Your task to perform on an android device: Show me popular videos on Youtube Image 0: 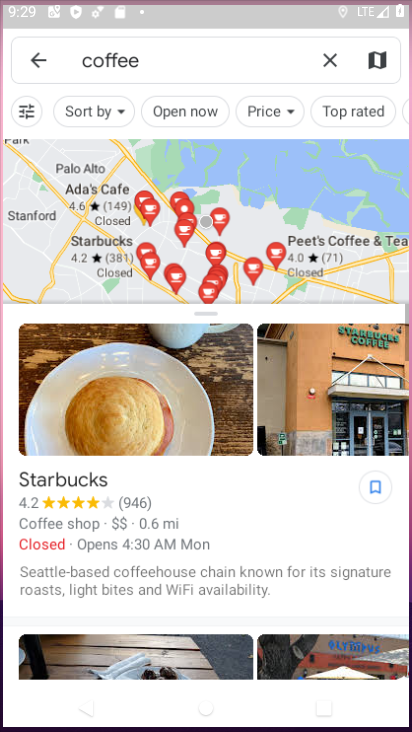
Step 0: drag from (256, 571) to (329, 86)
Your task to perform on an android device: Show me popular videos on Youtube Image 1: 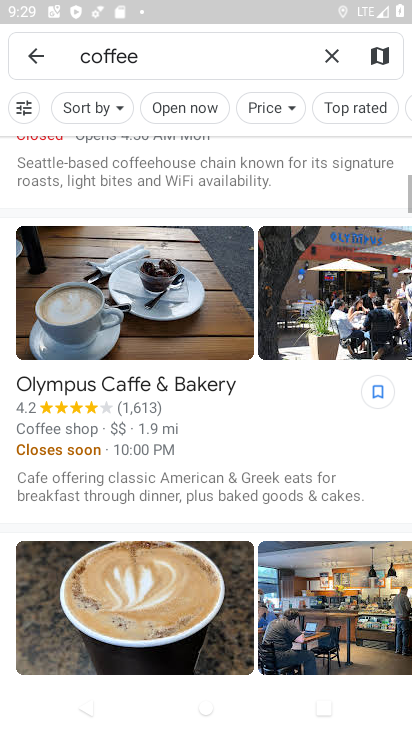
Step 1: press back button
Your task to perform on an android device: Show me popular videos on Youtube Image 2: 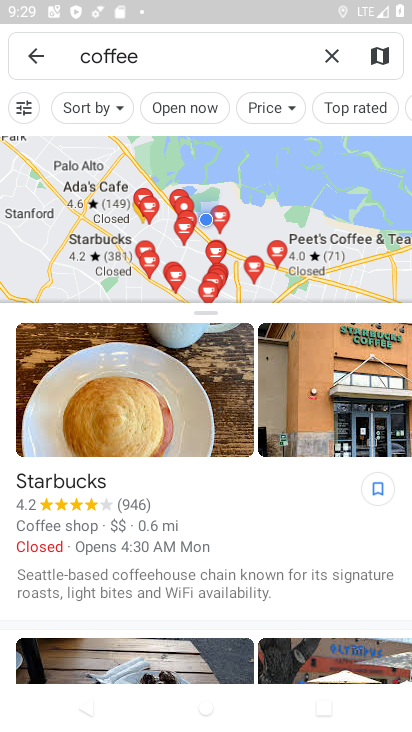
Step 2: press back button
Your task to perform on an android device: Show me popular videos on Youtube Image 3: 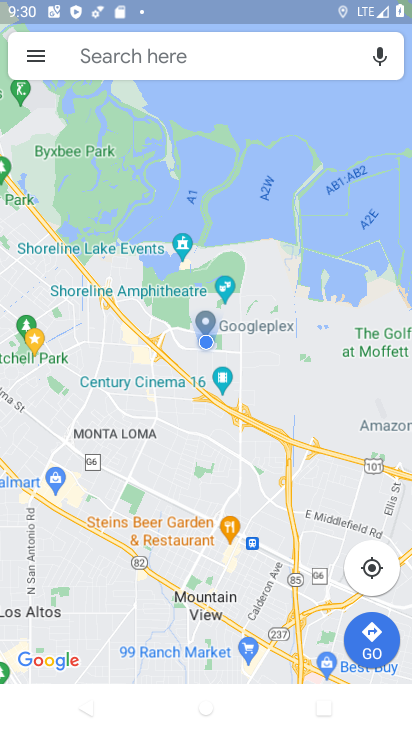
Step 3: press back button
Your task to perform on an android device: Show me popular videos on Youtube Image 4: 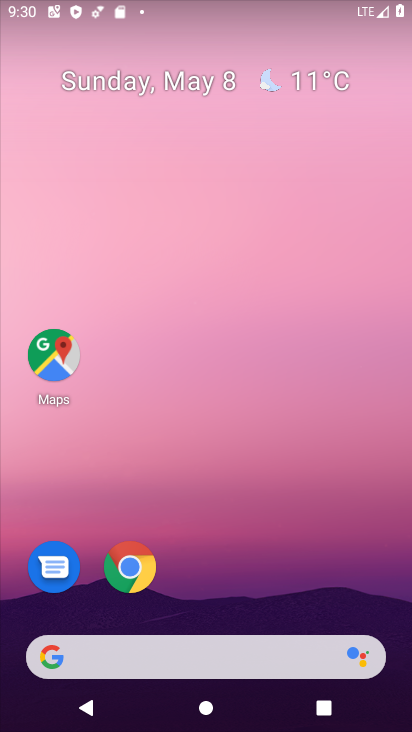
Step 4: drag from (210, 496) to (269, 57)
Your task to perform on an android device: Show me popular videos on Youtube Image 5: 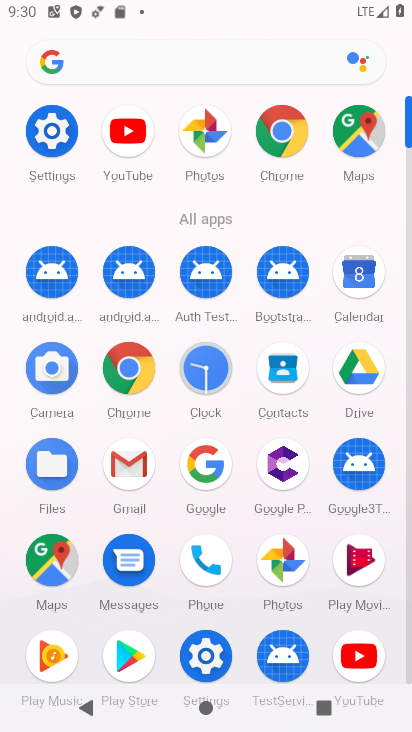
Step 5: click (129, 141)
Your task to perform on an android device: Show me popular videos on Youtube Image 6: 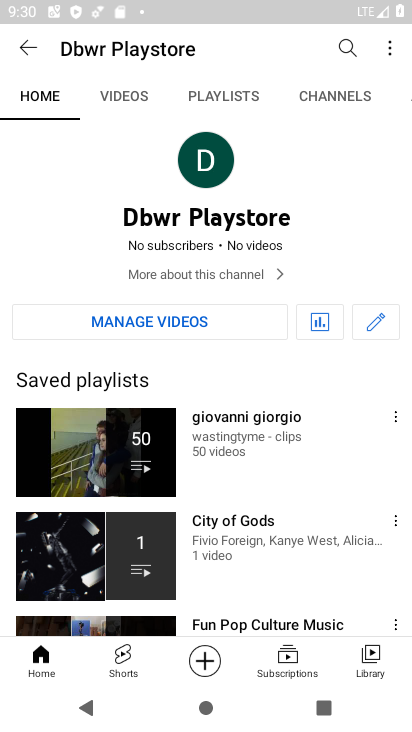
Step 6: click (19, 664)
Your task to perform on an android device: Show me popular videos on Youtube Image 7: 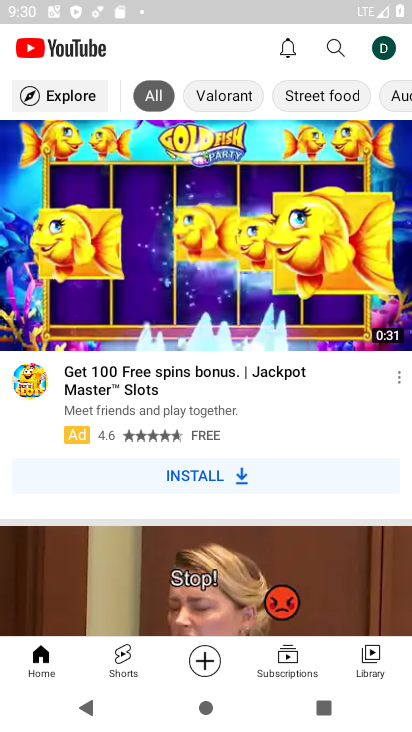
Step 7: click (61, 99)
Your task to perform on an android device: Show me popular videos on Youtube Image 8: 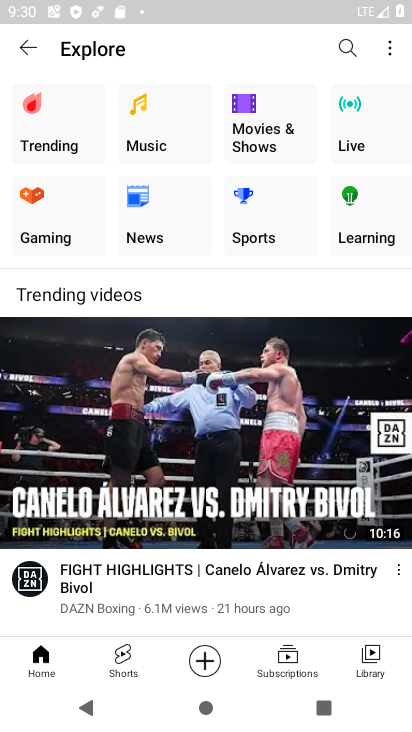
Step 8: click (48, 126)
Your task to perform on an android device: Show me popular videos on Youtube Image 9: 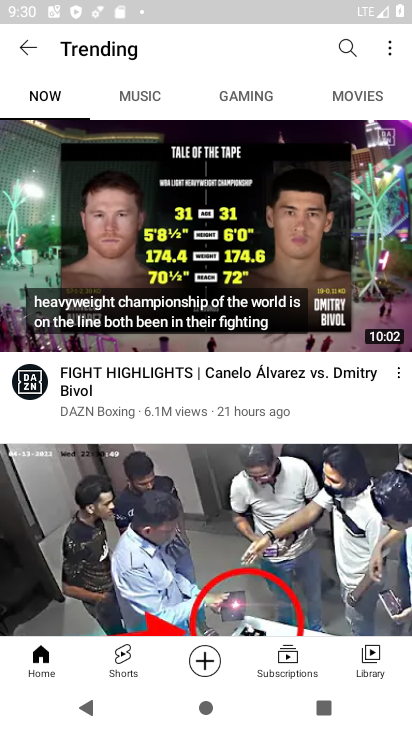
Step 9: task complete